Your task to perform on an android device: Open Chrome and go to settings Image 0: 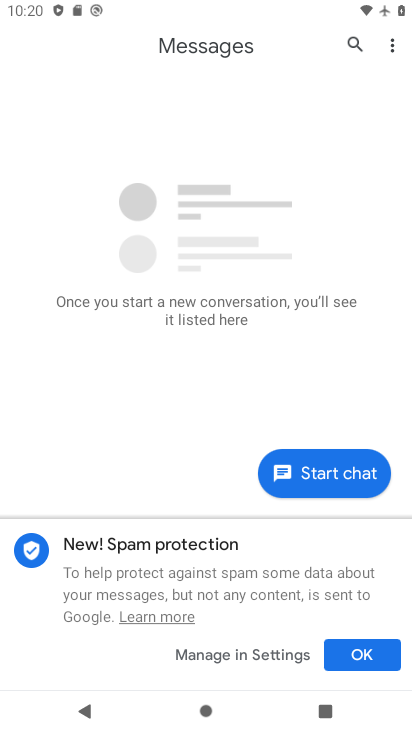
Step 0: press home button
Your task to perform on an android device: Open Chrome and go to settings Image 1: 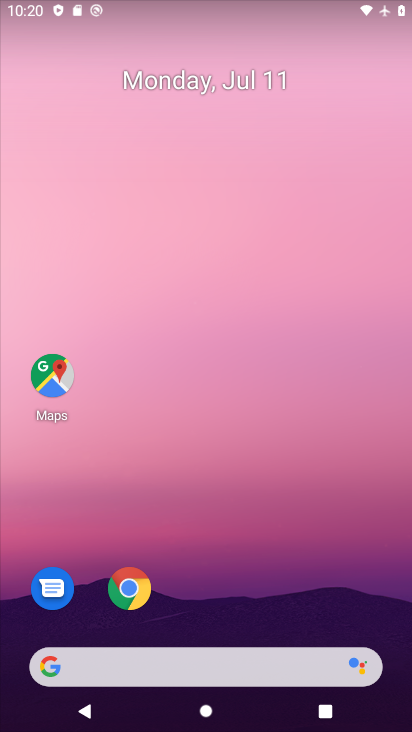
Step 1: click (134, 593)
Your task to perform on an android device: Open Chrome and go to settings Image 2: 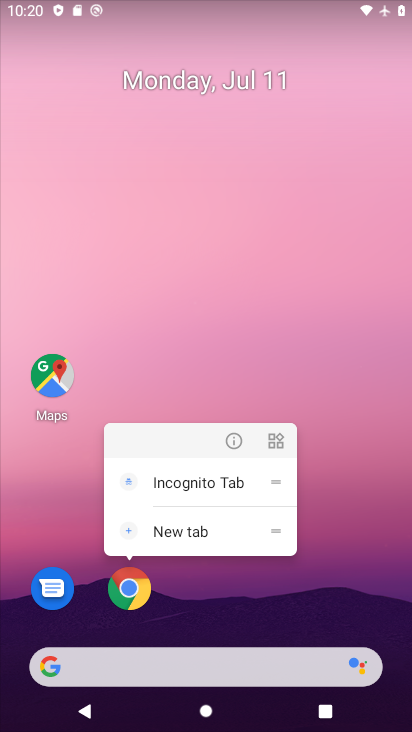
Step 2: click (161, 575)
Your task to perform on an android device: Open Chrome and go to settings Image 3: 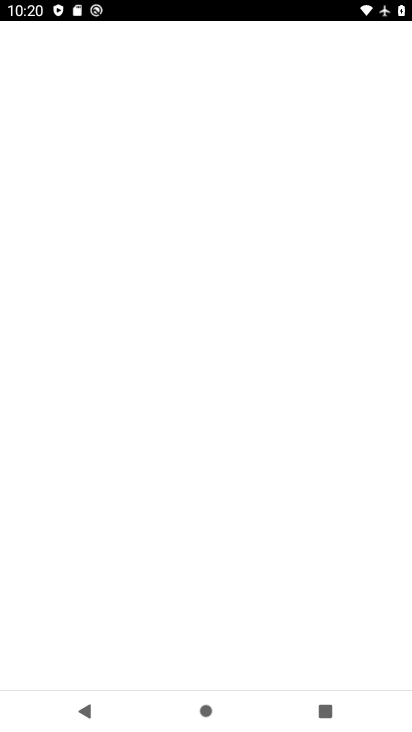
Step 3: click (136, 586)
Your task to perform on an android device: Open Chrome and go to settings Image 4: 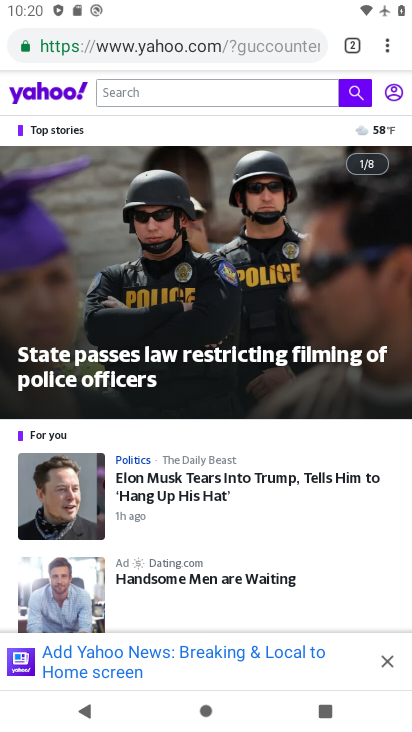
Step 4: task complete